Your task to perform on an android device: turn off translation in the chrome app Image 0: 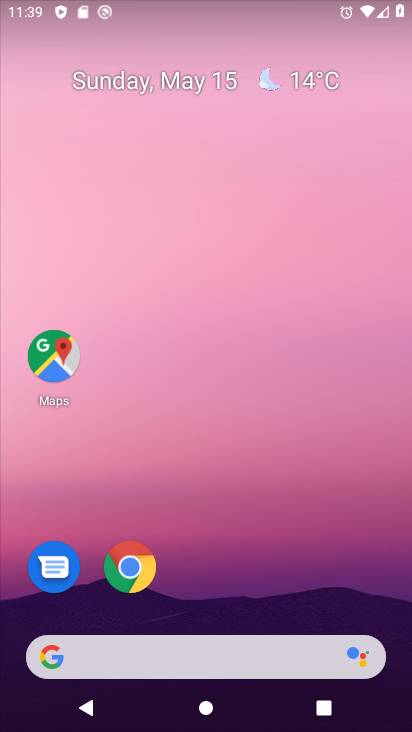
Step 0: click (132, 570)
Your task to perform on an android device: turn off translation in the chrome app Image 1: 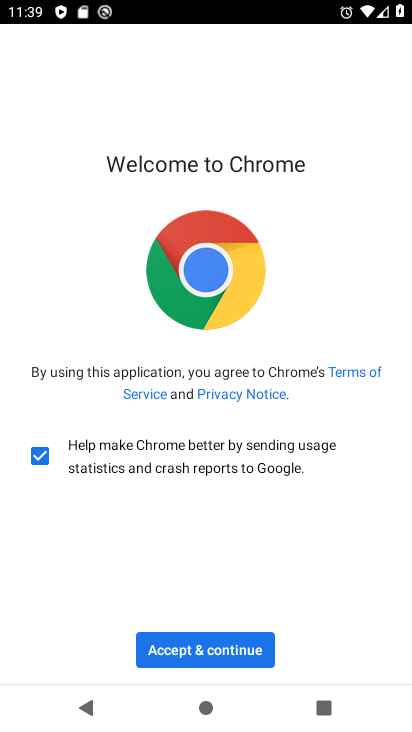
Step 1: click (192, 648)
Your task to perform on an android device: turn off translation in the chrome app Image 2: 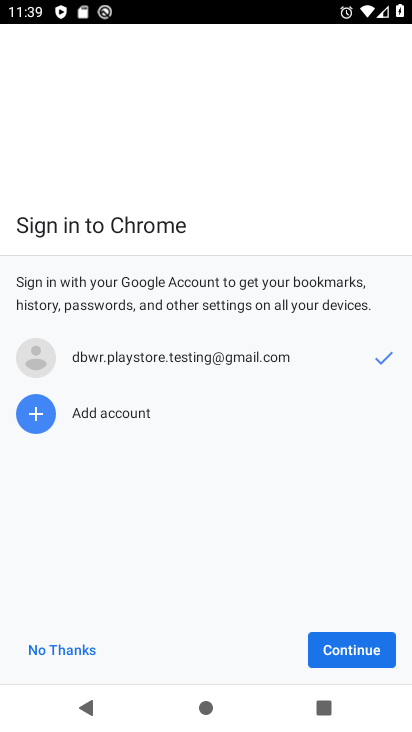
Step 2: click (337, 653)
Your task to perform on an android device: turn off translation in the chrome app Image 3: 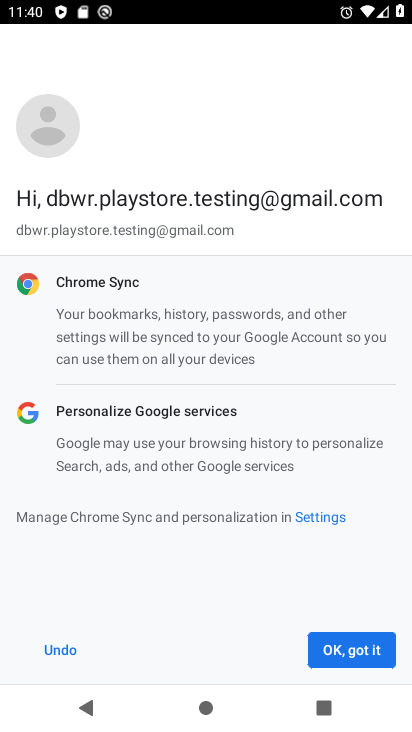
Step 3: click (345, 646)
Your task to perform on an android device: turn off translation in the chrome app Image 4: 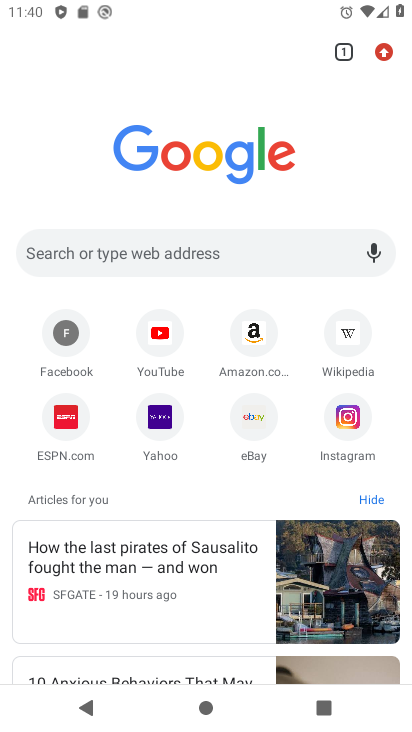
Step 4: click (383, 53)
Your task to perform on an android device: turn off translation in the chrome app Image 5: 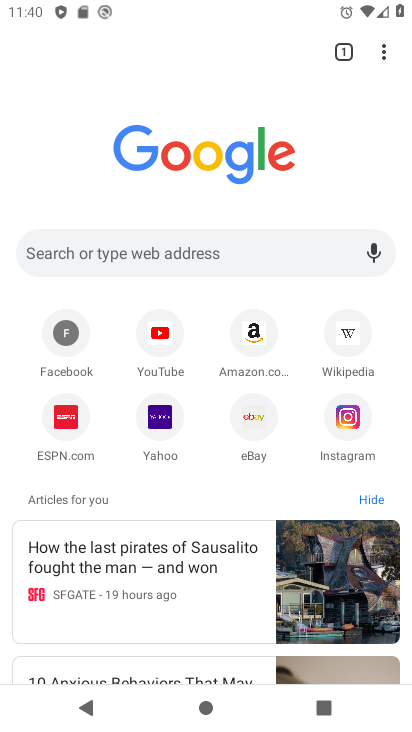
Step 5: click (381, 49)
Your task to perform on an android device: turn off translation in the chrome app Image 6: 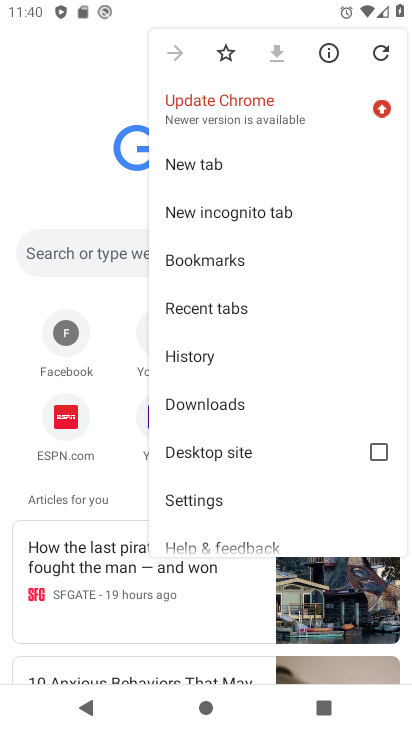
Step 6: click (239, 504)
Your task to perform on an android device: turn off translation in the chrome app Image 7: 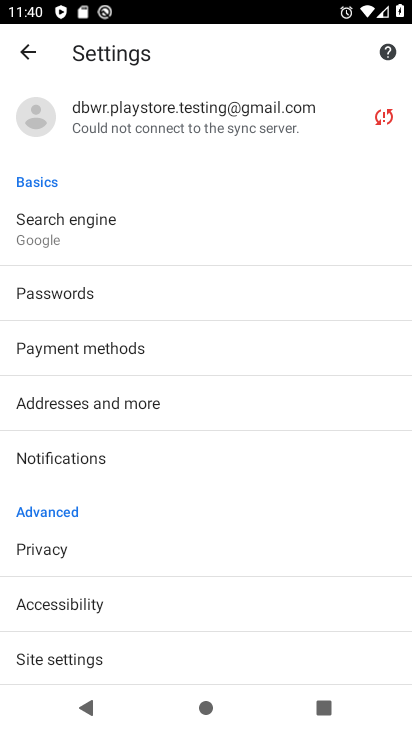
Step 7: drag from (208, 630) to (235, 385)
Your task to perform on an android device: turn off translation in the chrome app Image 8: 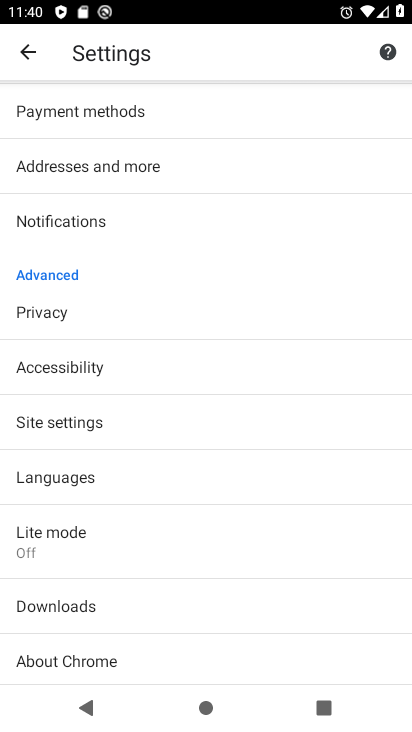
Step 8: click (88, 480)
Your task to perform on an android device: turn off translation in the chrome app Image 9: 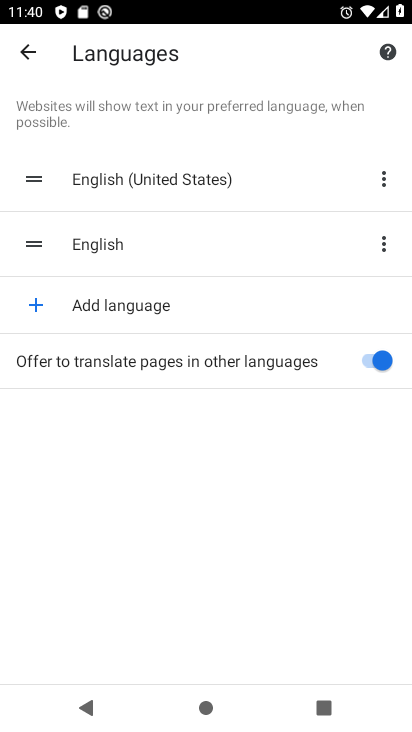
Step 9: click (383, 368)
Your task to perform on an android device: turn off translation in the chrome app Image 10: 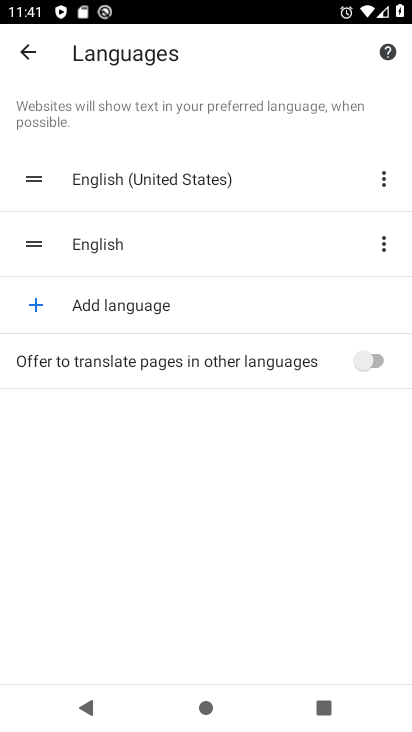
Step 10: task complete